Your task to perform on an android device: set default search engine in the chrome app Image 0: 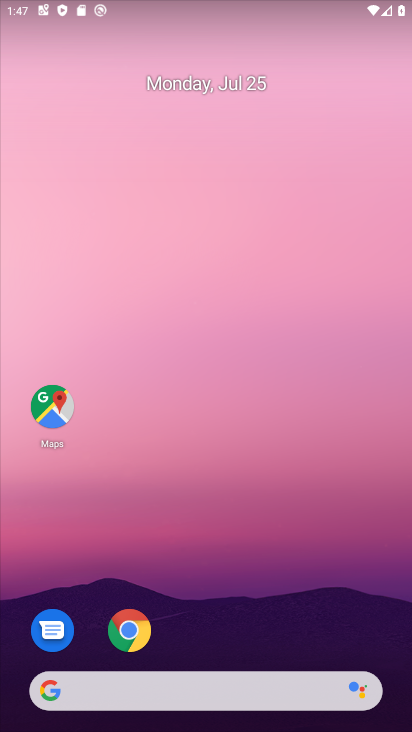
Step 0: click (116, 631)
Your task to perform on an android device: set default search engine in the chrome app Image 1: 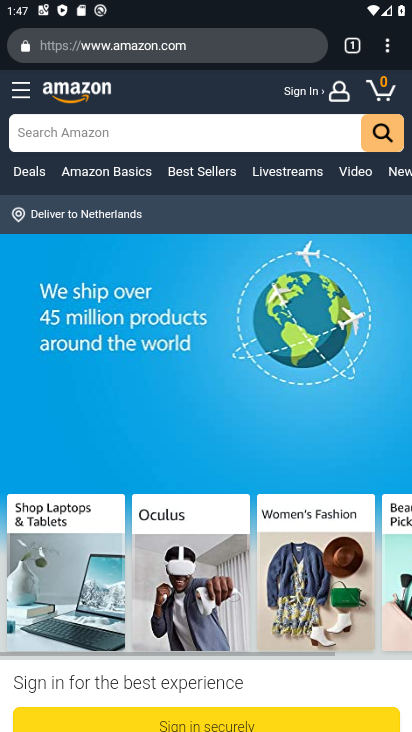
Step 1: click (393, 37)
Your task to perform on an android device: set default search engine in the chrome app Image 2: 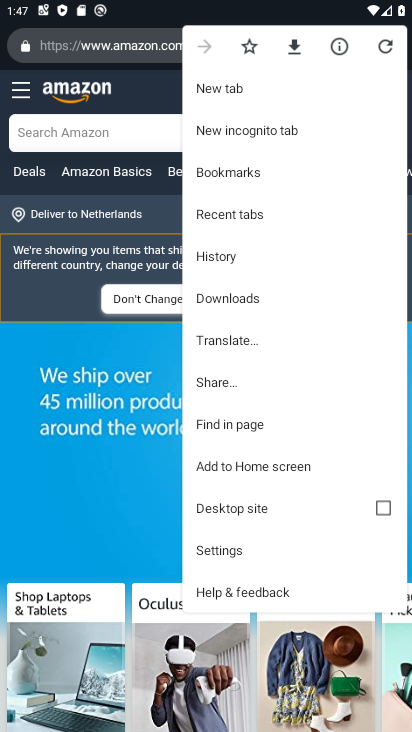
Step 2: click (240, 561)
Your task to perform on an android device: set default search engine in the chrome app Image 3: 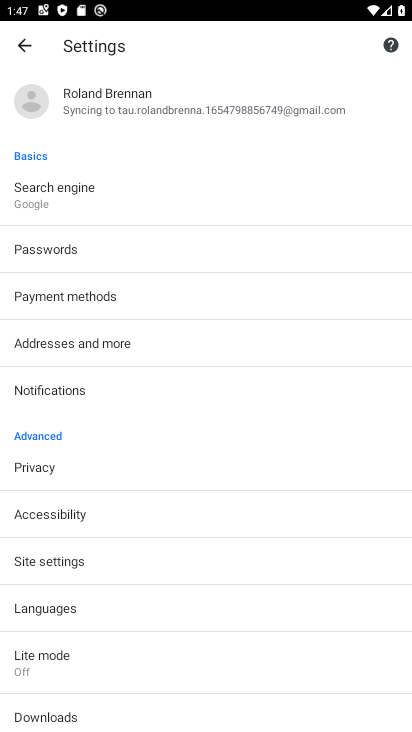
Step 3: click (124, 201)
Your task to perform on an android device: set default search engine in the chrome app Image 4: 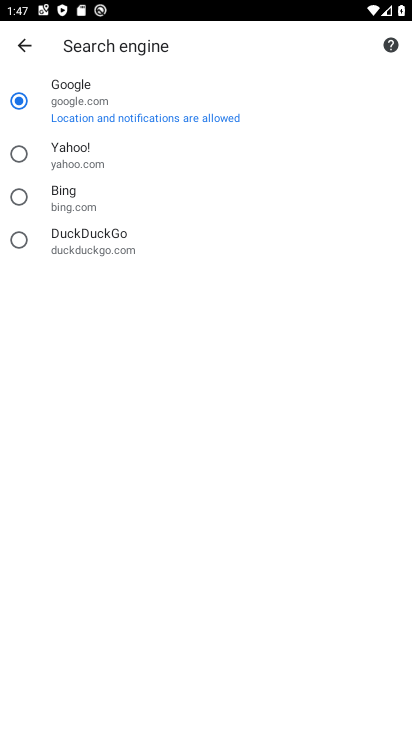
Step 4: click (44, 164)
Your task to perform on an android device: set default search engine in the chrome app Image 5: 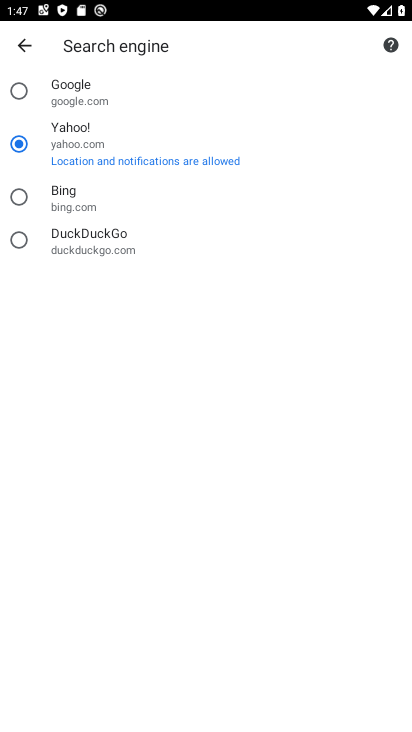
Step 5: task complete